Your task to perform on an android device: clear all cookies in the chrome app Image 0: 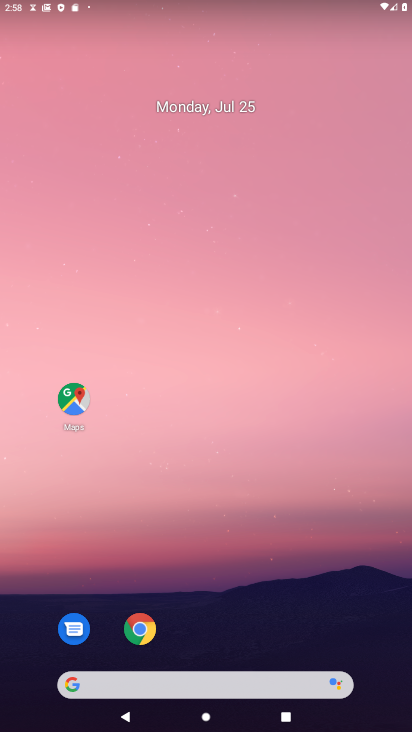
Step 0: drag from (303, 611) to (199, 127)
Your task to perform on an android device: clear all cookies in the chrome app Image 1: 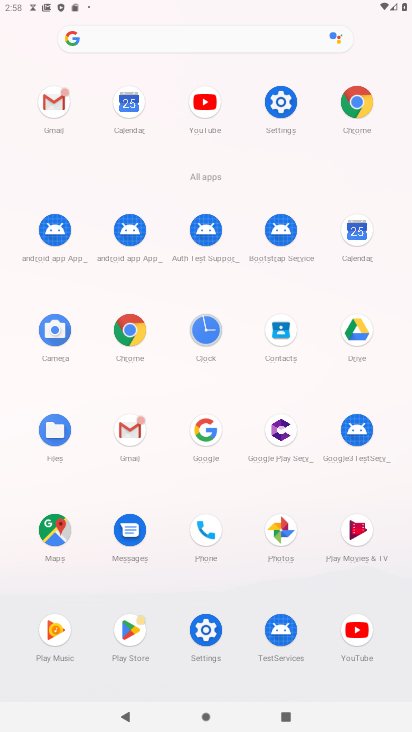
Step 1: click (368, 107)
Your task to perform on an android device: clear all cookies in the chrome app Image 2: 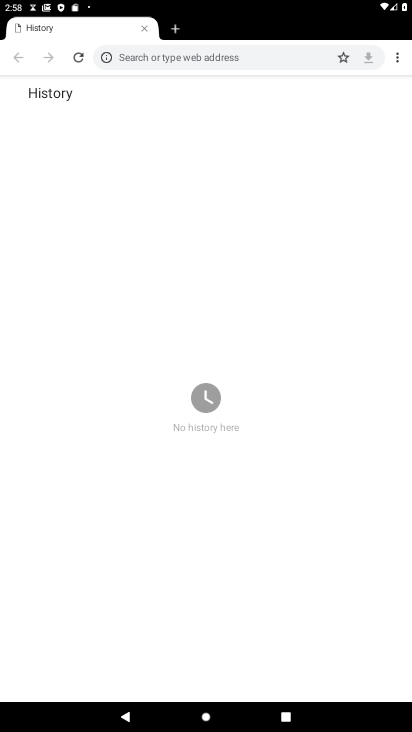
Step 2: click (405, 63)
Your task to perform on an android device: clear all cookies in the chrome app Image 3: 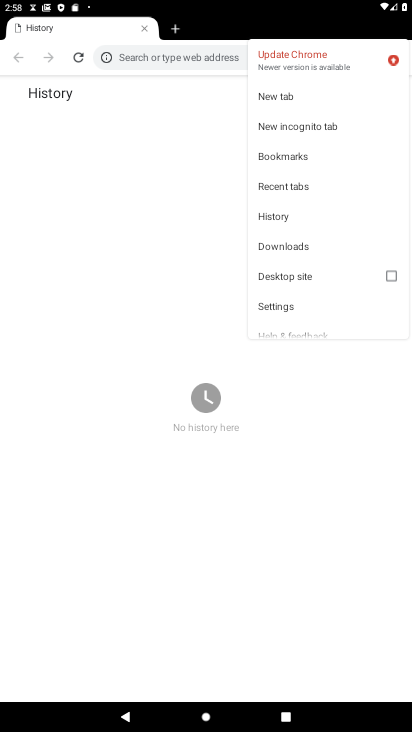
Step 3: click (314, 210)
Your task to perform on an android device: clear all cookies in the chrome app Image 4: 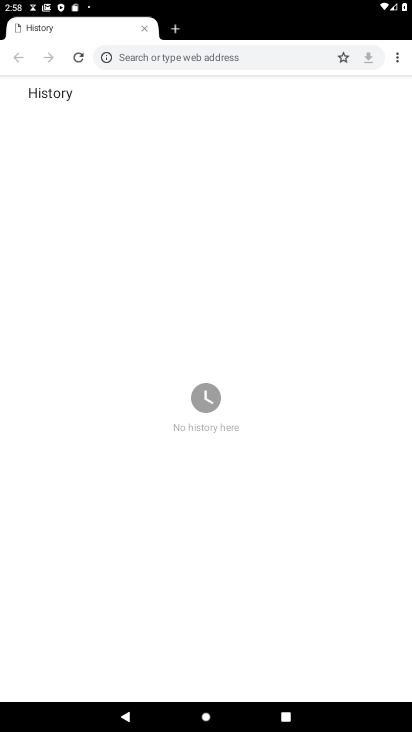
Step 4: click (405, 62)
Your task to perform on an android device: clear all cookies in the chrome app Image 5: 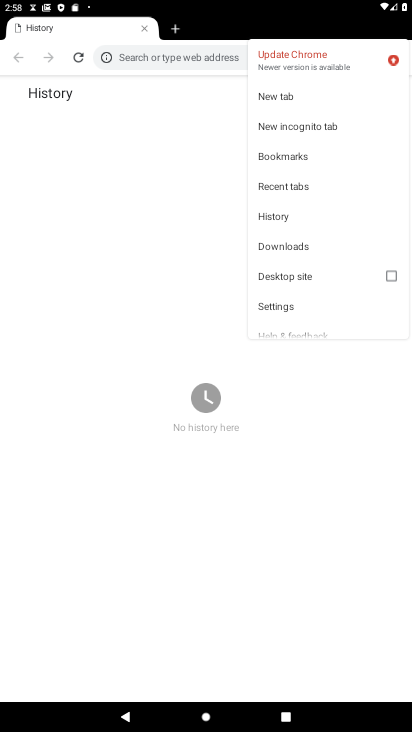
Step 5: click (271, 222)
Your task to perform on an android device: clear all cookies in the chrome app Image 6: 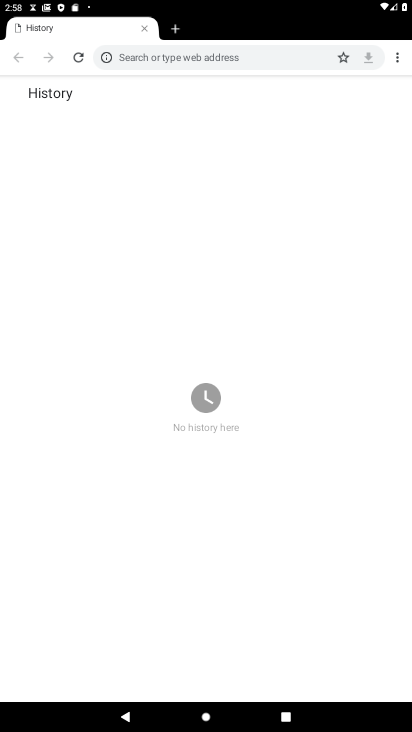
Step 6: click (399, 56)
Your task to perform on an android device: clear all cookies in the chrome app Image 7: 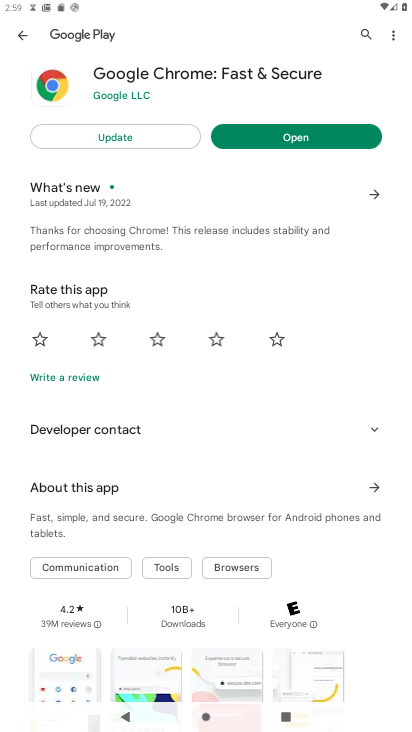
Step 7: task complete